Your task to perform on an android device: turn off javascript in the chrome app Image 0: 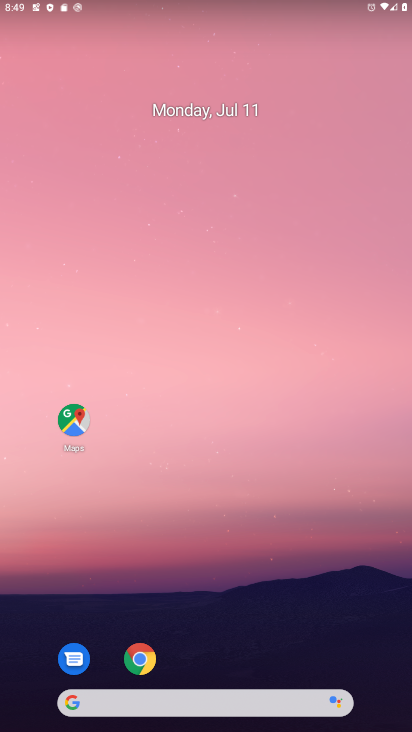
Step 0: click (138, 657)
Your task to perform on an android device: turn off javascript in the chrome app Image 1: 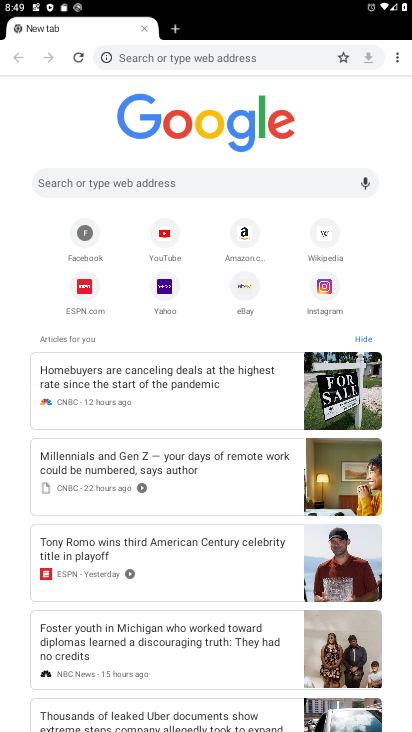
Step 1: click (394, 54)
Your task to perform on an android device: turn off javascript in the chrome app Image 2: 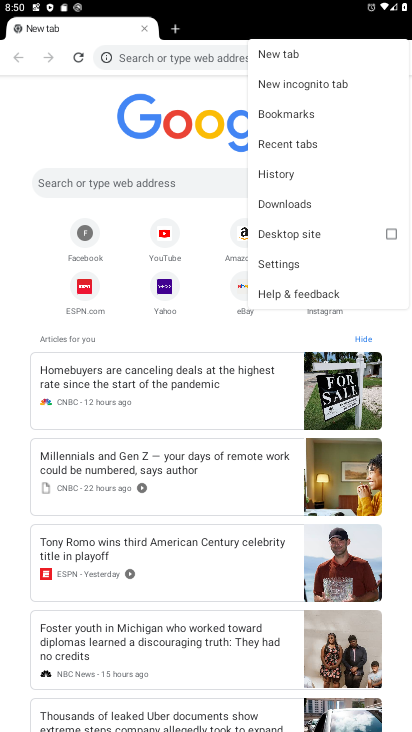
Step 2: click (284, 261)
Your task to perform on an android device: turn off javascript in the chrome app Image 3: 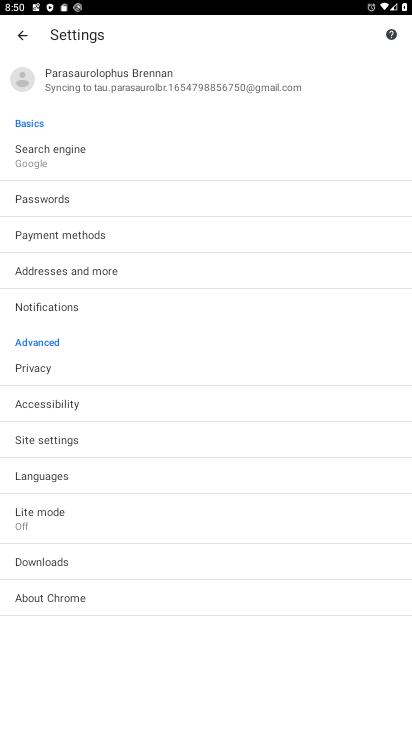
Step 3: click (55, 436)
Your task to perform on an android device: turn off javascript in the chrome app Image 4: 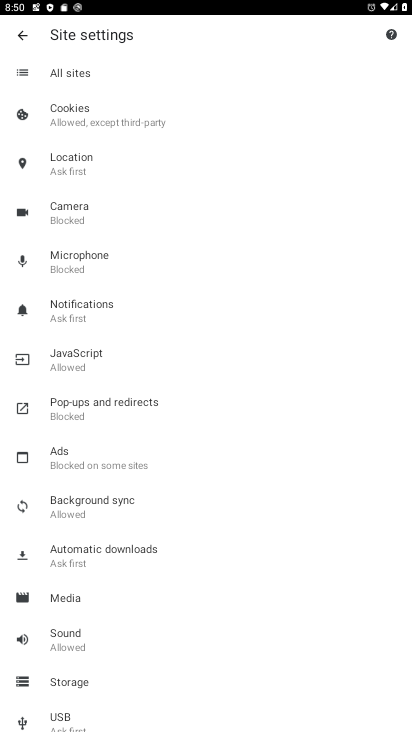
Step 4: click (90, 356)
Your task to perform on an android device: turn off javascript in the chrome app Image 5: 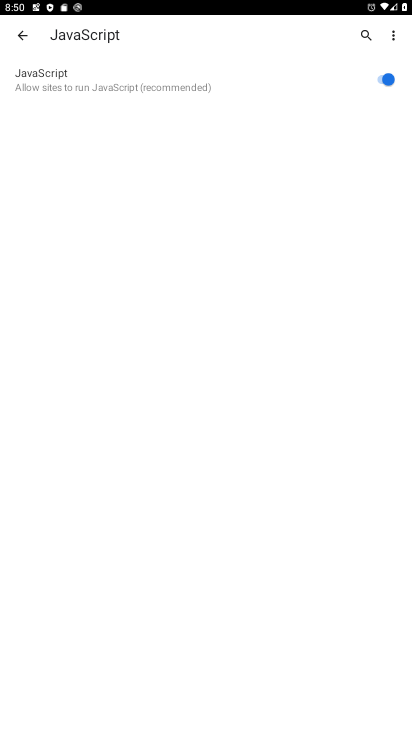
Step 5: click (384, 73)
Your task to perform on an android device: turn off javascript in the chrome app Image 6: 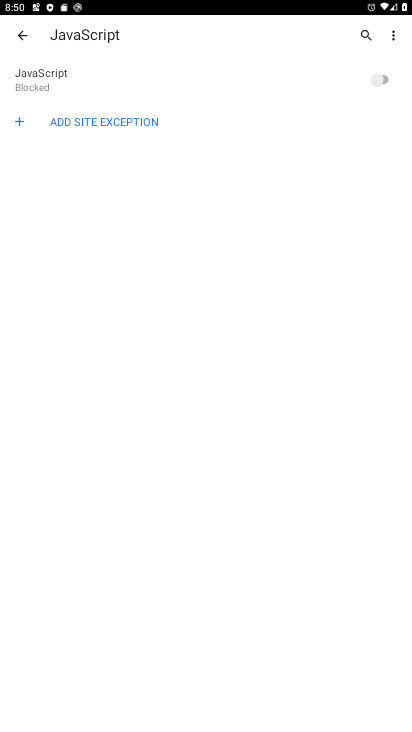
Step 6: task complete